Your task to perform on an android device: turn off priority inbox in the gmail app Image 0: 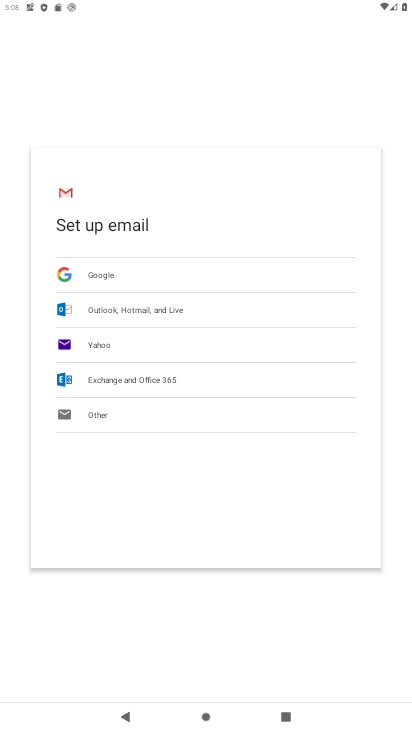
Step 0: press home button
Your task to perform on an android device: turn off priority inbox in the gmail app Image 1: 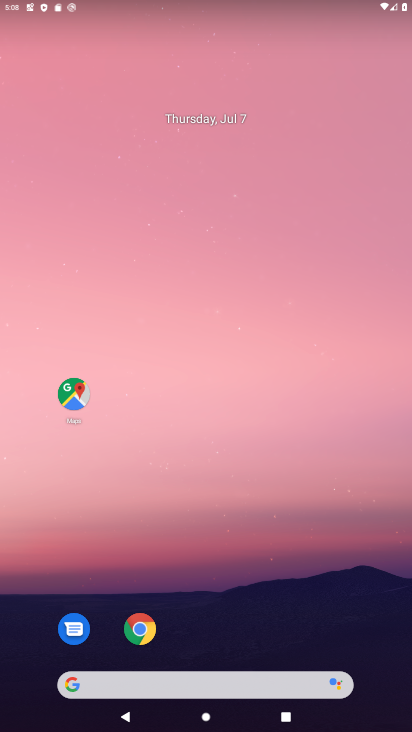
Step 1: drag from (263, 553) to (232, 224)
Your task to perform on an android device: turn off priority inbox in the gmail app Image 2: 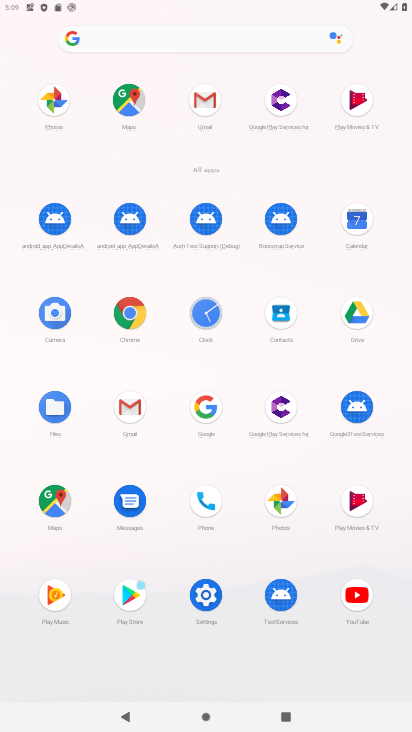
Step 2: click (130, 413)
Your task to perform on an android device: turn off priority inbox in the gmail app Image 3: 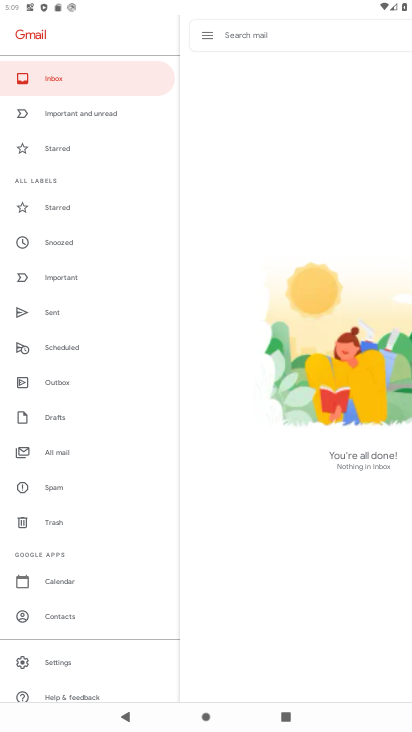
Step 3: click (50, 665)
Your task to perform on an android device: turn off priority inbox in the gmail app Image 4: 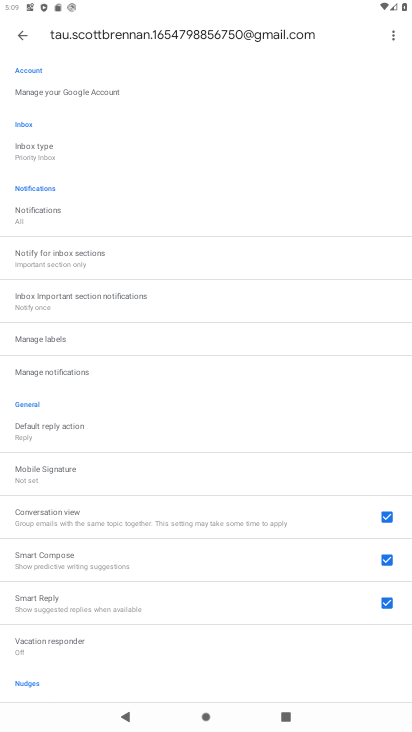
Step 4: click (25, 139)
Your task to perform on an android device: turn off priority inbox in the gmail app Image 5: 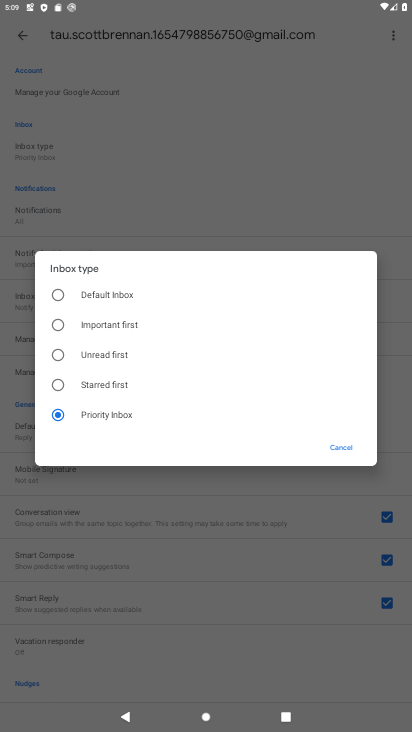
Step 5: click (62, 317)
Your task to perform on an android device: turn off priority inbox in the gmail app Image 6: 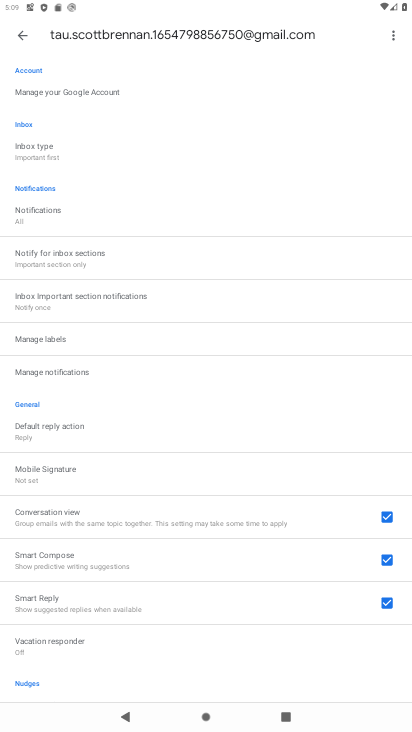
Step 6: task complete